Your task to perform on an android device: Set the phone to "Do not disturb". Image 0: 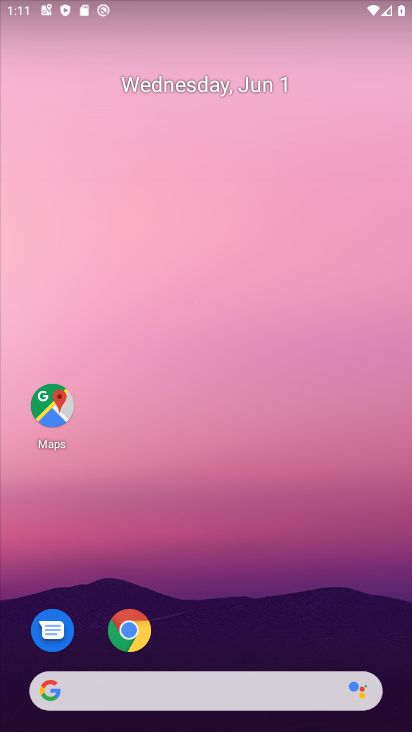
Step 0: press home button
Your task to perform on an android device: Set the phone to "Do not disturb". Image 1: 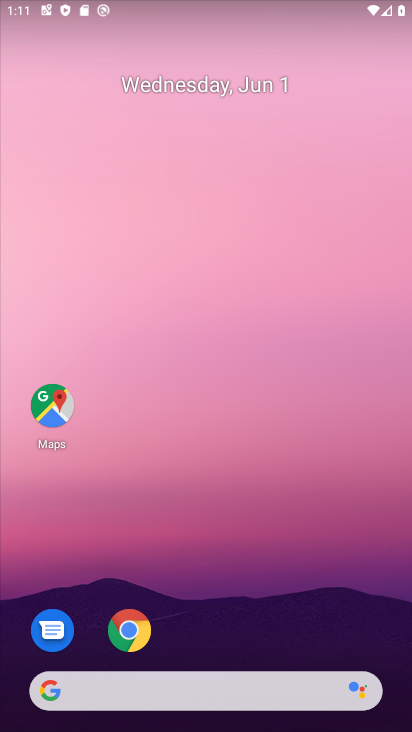
Step 1: drag from (203, 10) to (195, 558)
Your task to perform on an android device: Set the phone to "Do not disturb". Image 2: 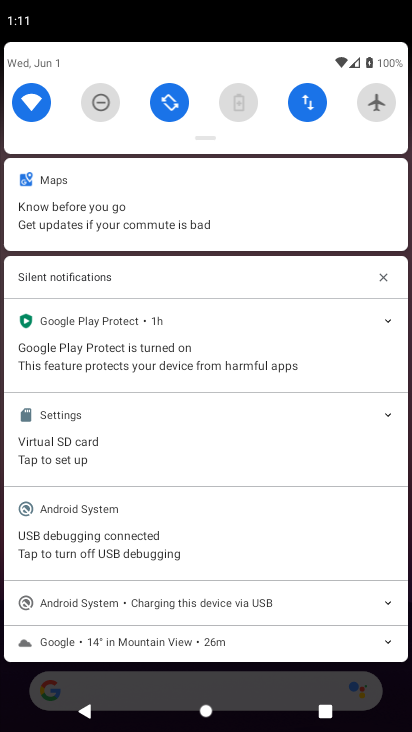
Step 2: click (99, 98)
Your task to perform on an android device: Set the phone to "Do not disturb". Image 3: 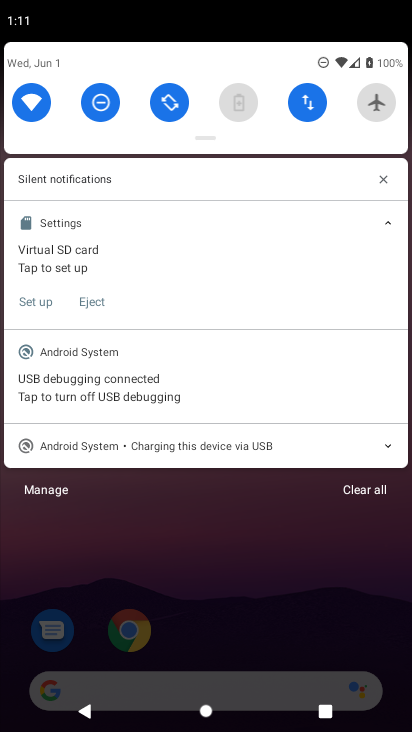
Step 3: task complete